Your task to perform on an android device: check google app version Image 0: 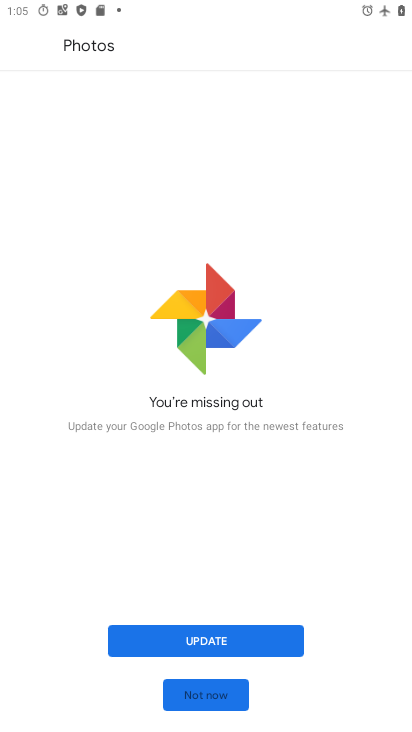
Step 0: press home button
Your task to perform on an android device: check google app version Image 1: 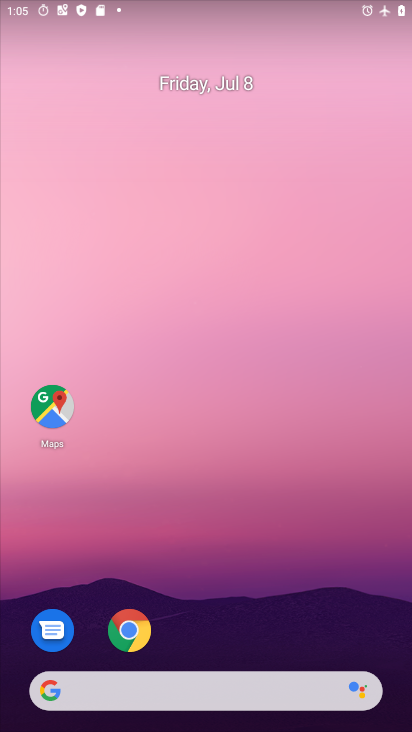
Step 1: drag from (199, 615) to (205, 207)
Your task to perform on an android device: check google app version Image 2: 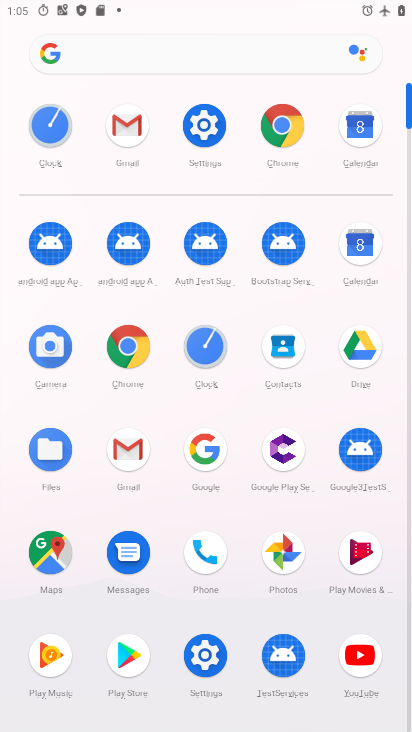
Step 2: click (205, 433)
Your task to perform on an android device: check google app version Image 3: 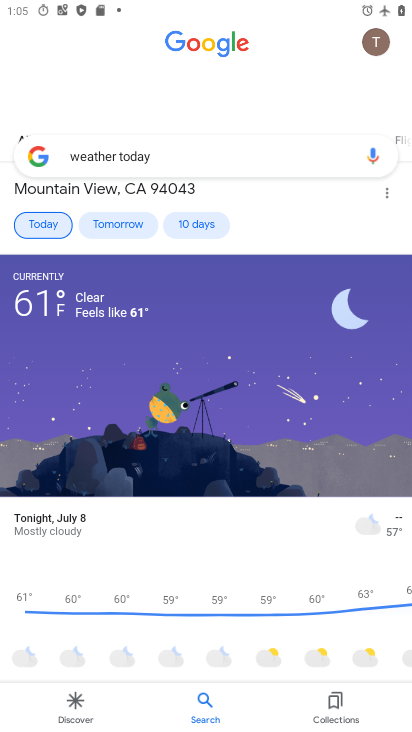
Step 3: click (373, 47)
Your task to perform on an android device: check google app version Image 4: 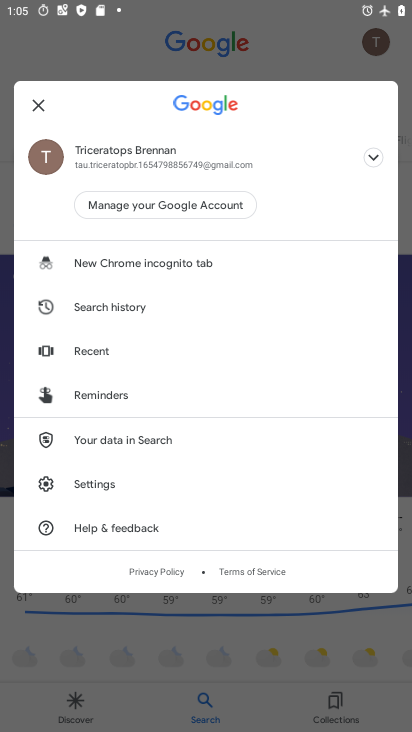
Step 4: click (98, 489)
Your task to perform on an android device: check google app version Image 5: 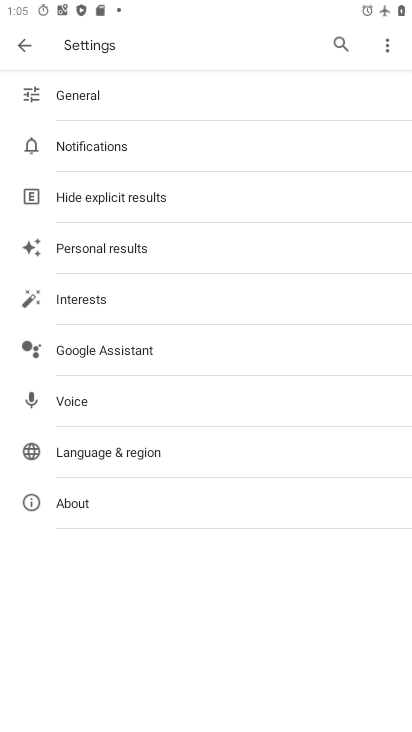
Step 5: click (98, 489)
Your task to perform on an android device: check google app version Image 6: 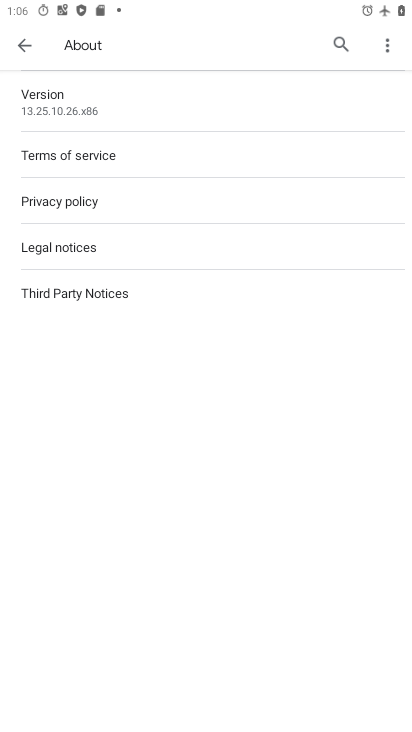
Step 6: click (139, 112)
Your task to perform on an android device: check google app version Image 7: 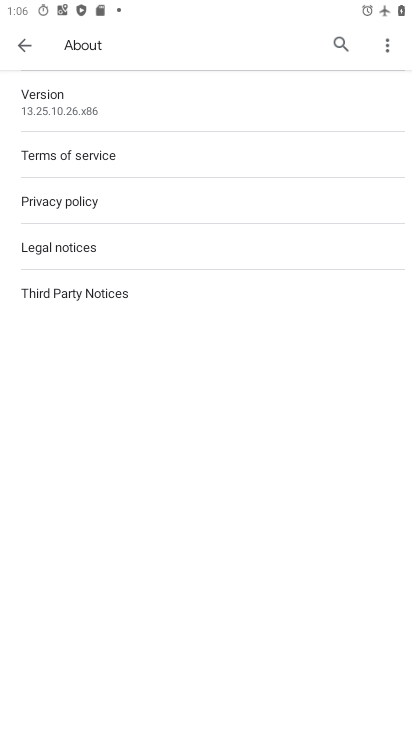
Step 7: task complete